Your task to perform on an android device: Open the calendar app, open the side menu, and click the "Day" option Image 0: 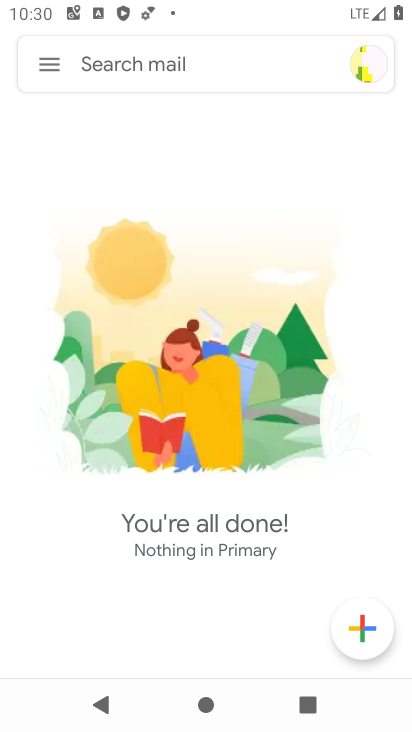
Step 0: press home button
Your task to perform on an android device: Open the calendar app, open the side menu, and click the "Day" option Image 1: 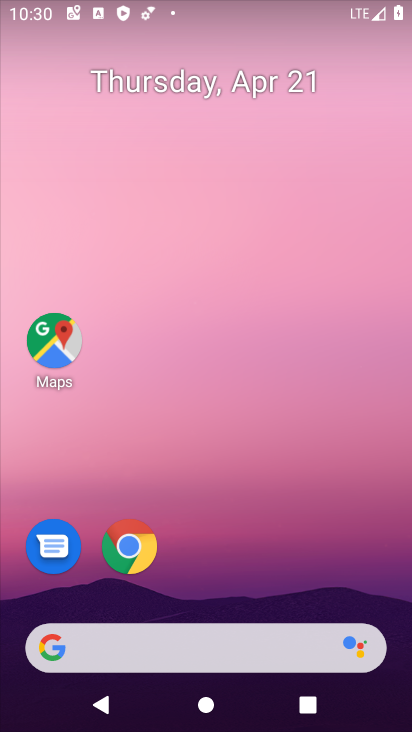
Step 1: drag from (368, 611) to (285, 216)
Your task to perform on an android device: Open the calendar app, open the side menu, and click the "Day" option Image 2: 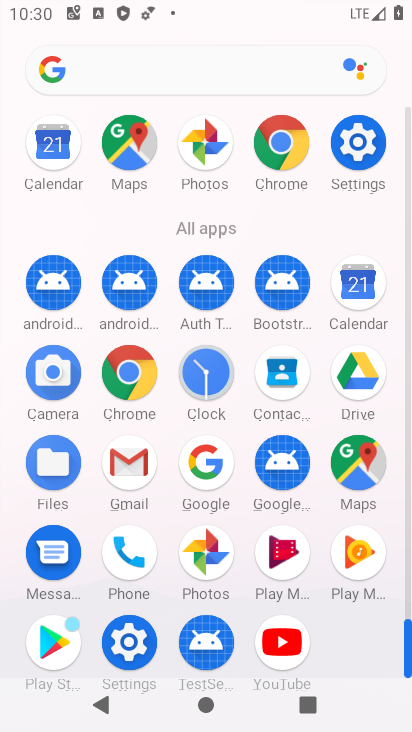
Step 2: click (359, 280)
Your task to perform on an android device: Open the calendar app, open the side menu, and click the "Day" option Image 3: 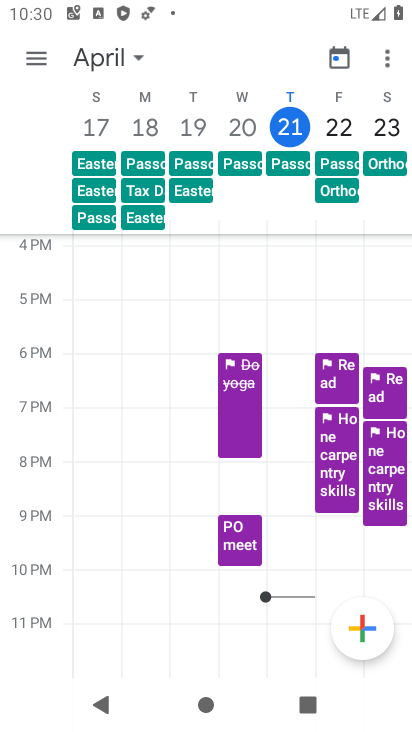
Step 3: click (35, 57)
Your task to perform on an android device: Open the calendar app, open the side menu, and click the "Day" option Image 4: 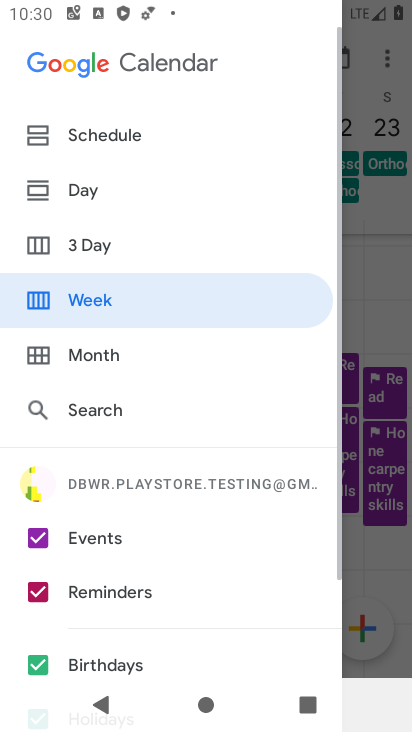
Step 4: click (75, 182)
Your task to perform on an android device: Open the calendar app, open the side menu, and click the "Day" option Image 5: 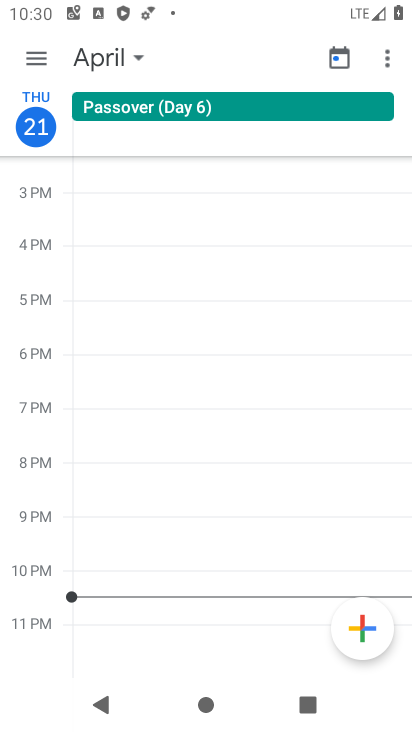
Step 5: task complete